Your task to perform on an android device: Open settings on Google Maps Image 0: 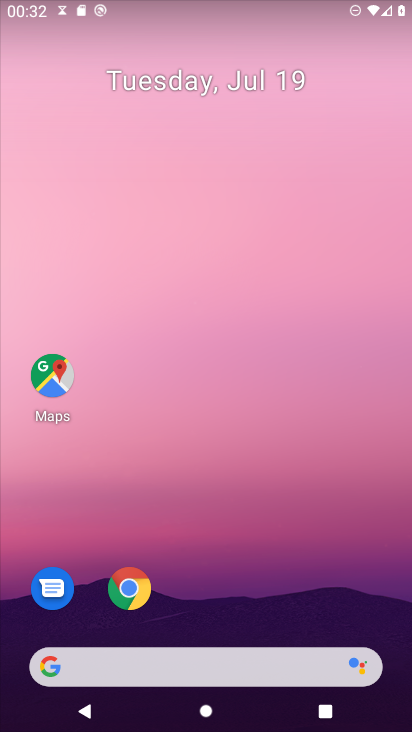
Step 0: press home button
Your task to perform on an android device: Open settings on Google Maps Image 1: 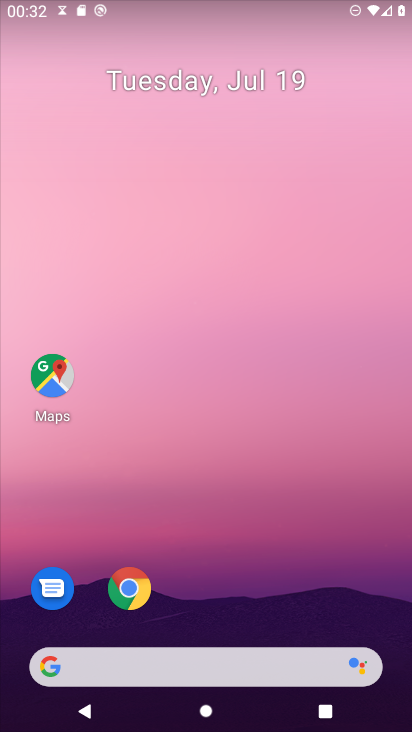
Step 1: click (43, 367)
Your task to perform on an android device: Open settings on Google Maps Image 2: 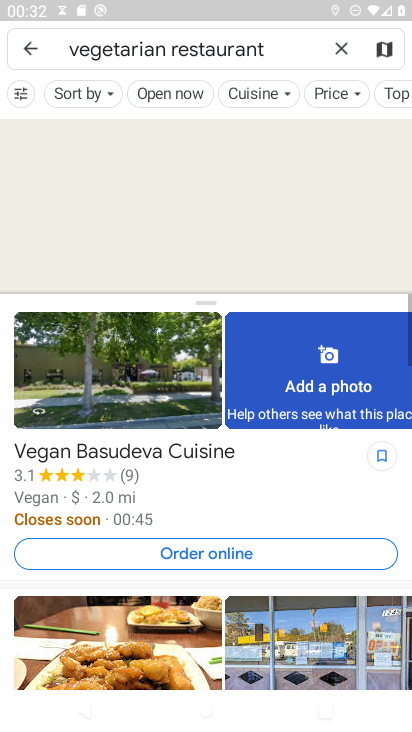
Step 2: click (28, 49)
Your task to perform on an android device: Open settings on Google Maps Image 3: 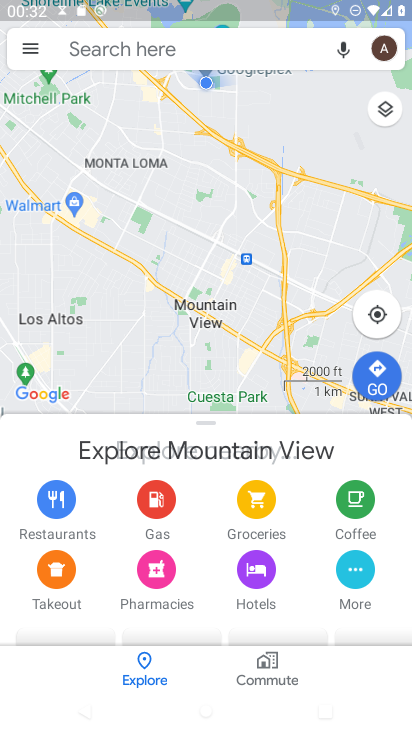
Step 3: click (34, 47)
Your task to perform on an android device: Open settings on Google Maps Image 4: 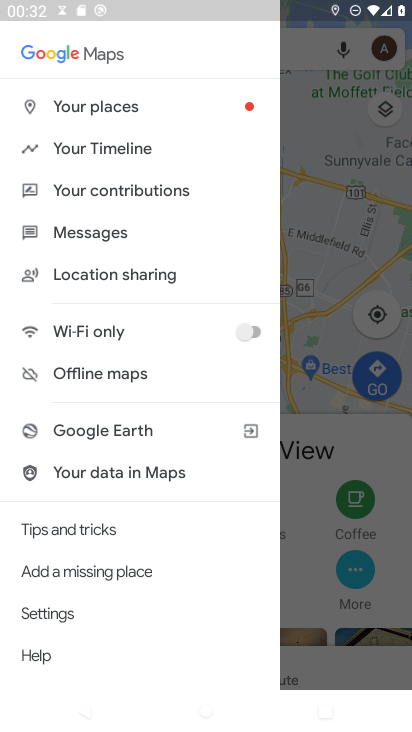
Step 4: click (72, 610)
Your task to perform on an android device: Open settings on Google Maps Image 5: 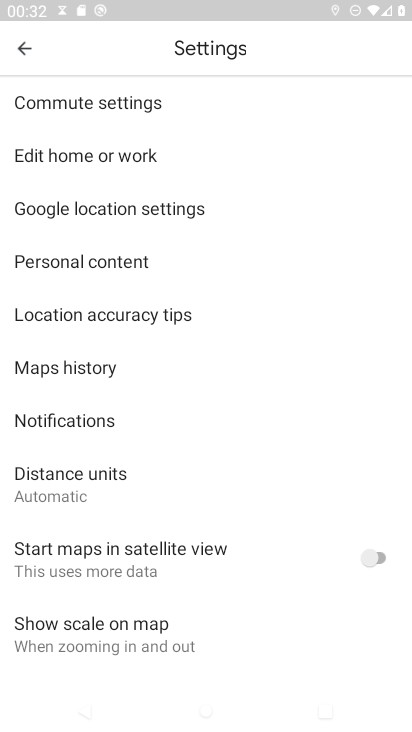
Step 5: task complete